Your task to perform on an android device: Go to Android settings Image 0: 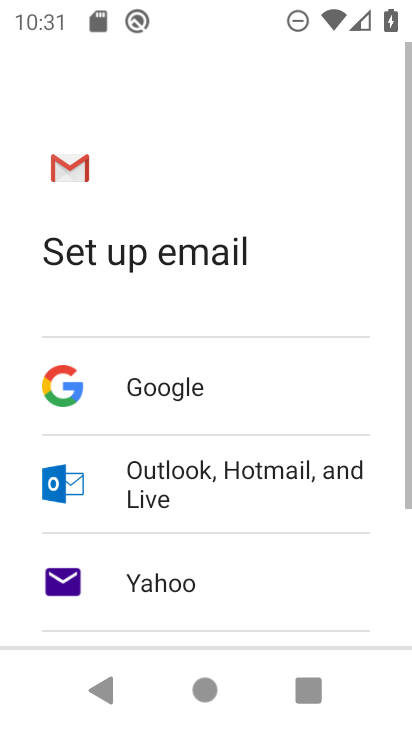
Step 0: press home button
Your task to perform on an android device: Go to Android settings Image 1: 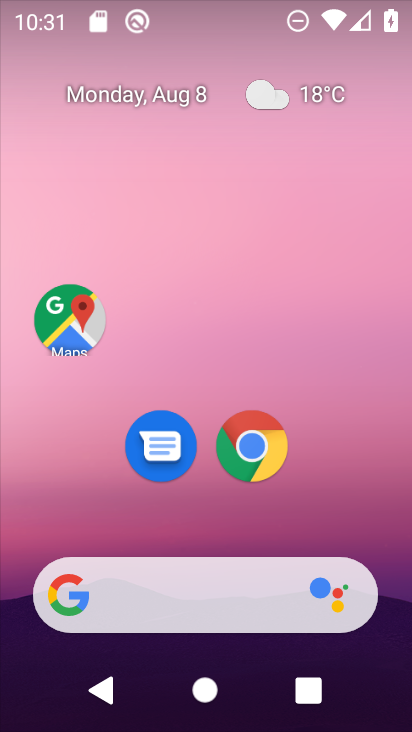
Step 1: drag from (386, 624) to (360, 186)
Your task to perform on an android device: Go to Android settings Image 2: 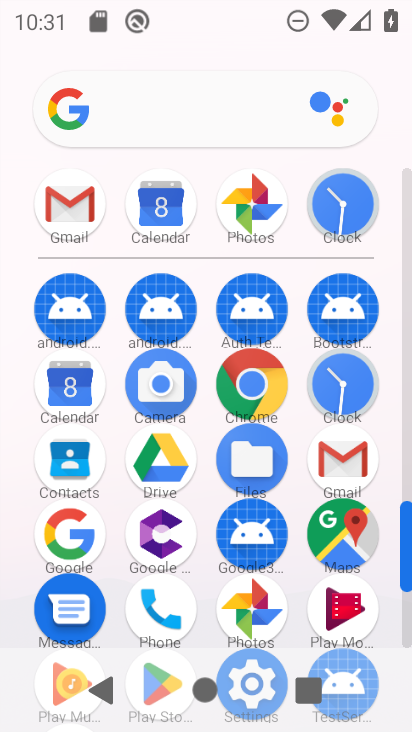
Step 2: click (407, 630)
Your task to perform on an android device: Go to Android settings Image 3: 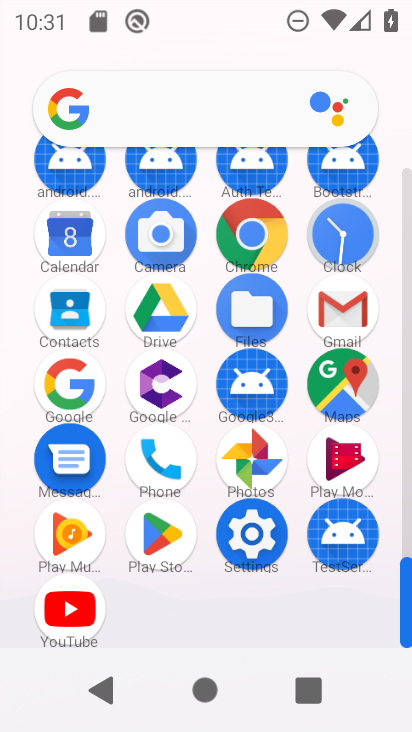
Step 3: click (253, 532)
Your task to perform on an android device: Go to Android settings Image 4: 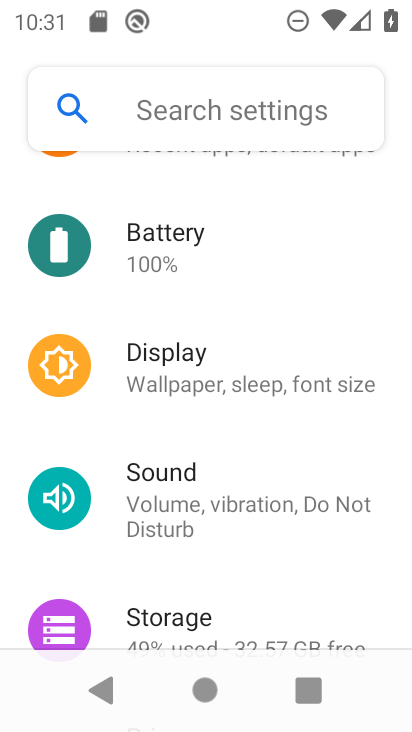
Step 4: drag from (360, 585) to (344, 180)
Your task to perform on an android device: Go to Android settings Image 5: 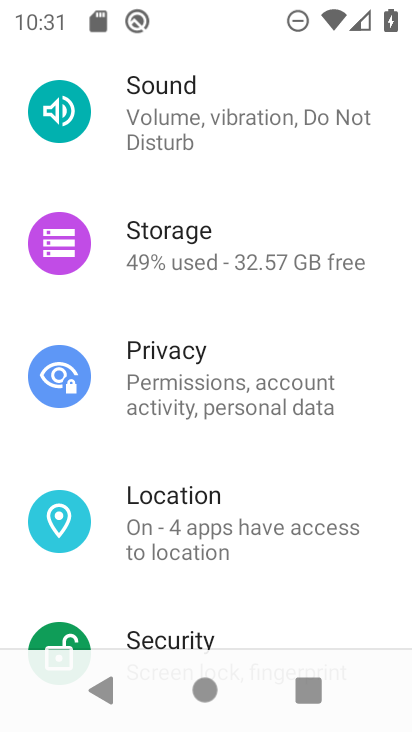
Step 5: drag from (337, 578) to (327, 175)
Your task to perform on an android device: Go to Android settings Image 6: 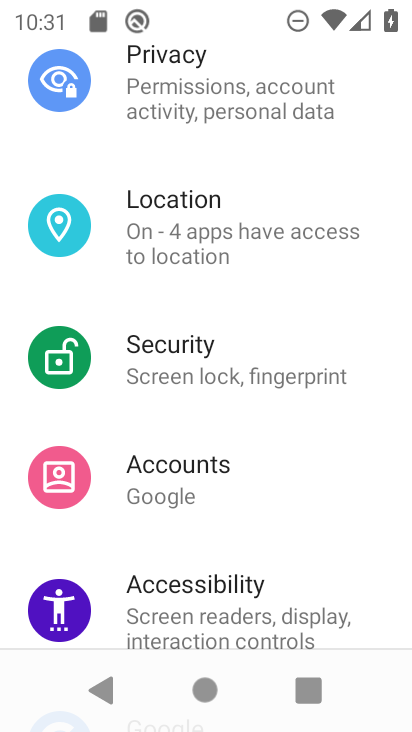
Step 6: drag from (338, 580) to (322, 171)
Your task to perform on an android device: Go to Android settings Image 7: 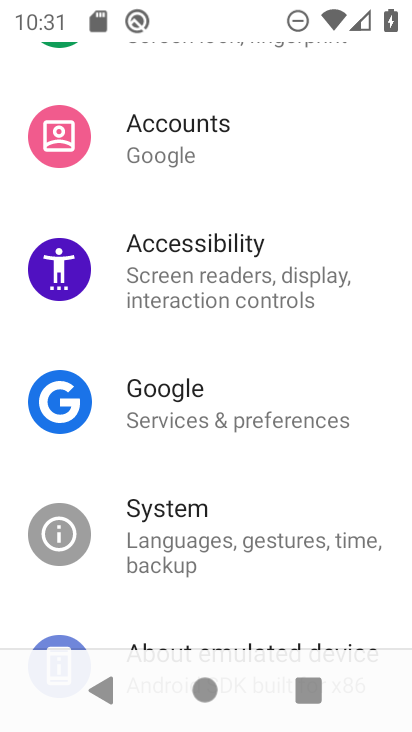
Step 7: drag from (347, 567) to (321, 178)
Your task to perform on an android device: Go to Android settings Image 8: 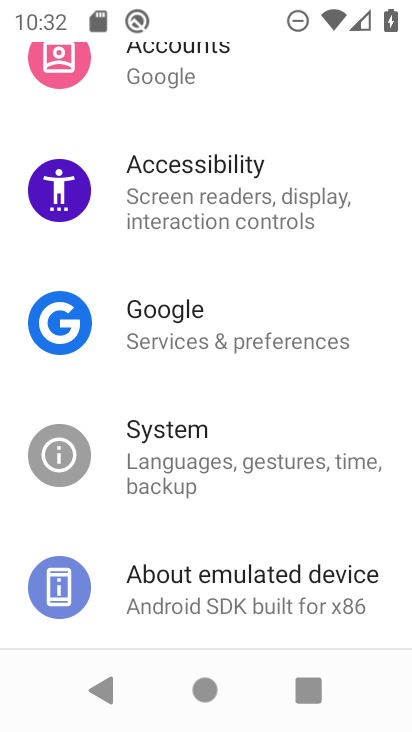
Step 8: click (190, 591)
Your task to perform on an android device: Go to Android settings Image 9: 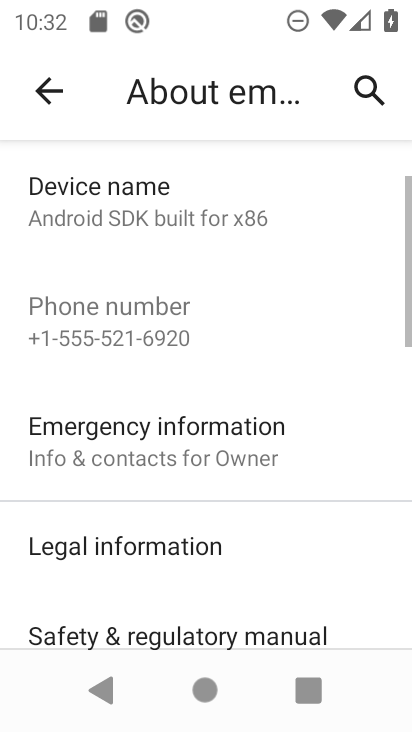
Step 9: task complete